Your task to perform on an android device: turn on data saver in the chrome app Image 0: 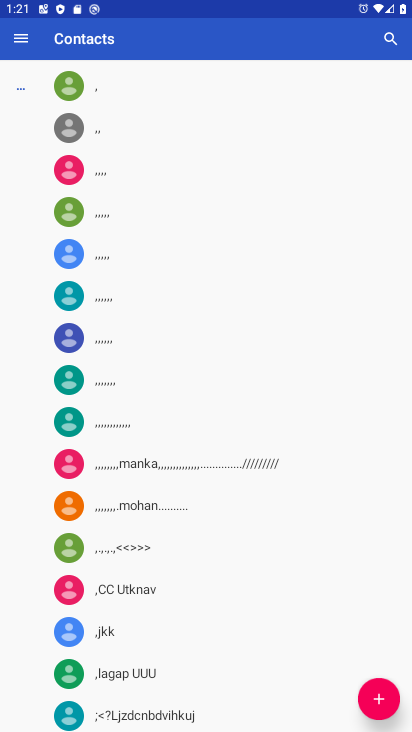
Step 0: press back button
Your task to perform on an android device: turn on data saver in the chrome app Image 1: 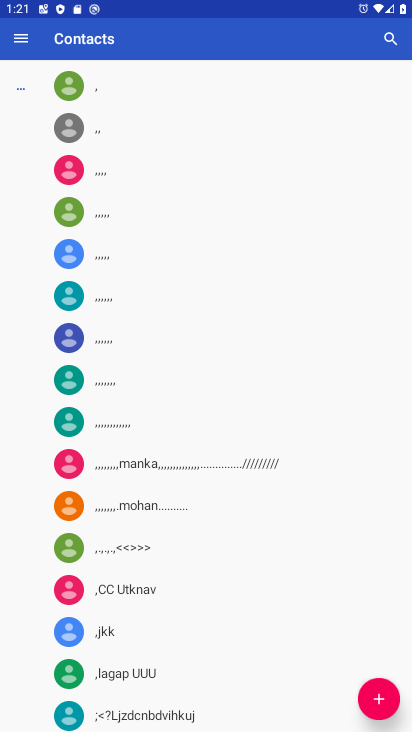
Step 1: press back button
Your task to perform on an android device: turn on data saver in the chrome app Image 2: 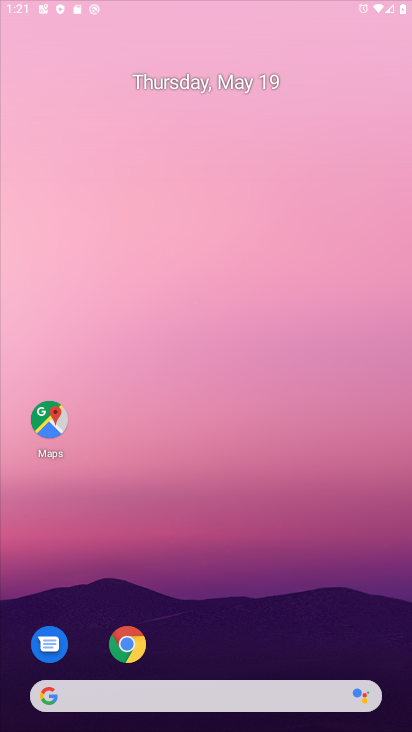
Step 2: press back button
Your task to perform on an android device: turn on data saver in the chrome app Image 3: 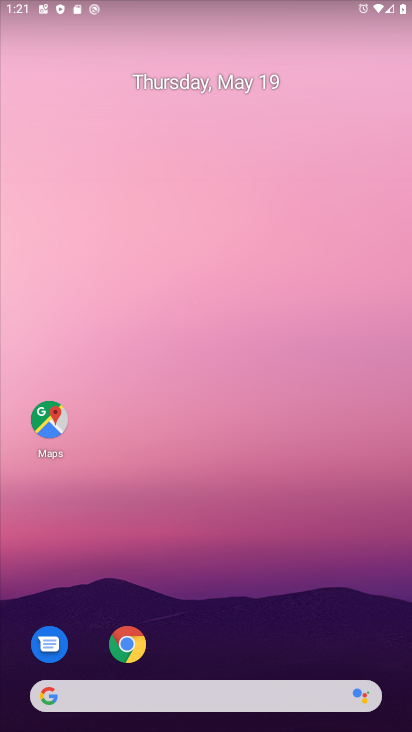
Step 3: drag from (321, 681) to (132, 38)
Your task to perform on an android device: turn on data saver in the chrome app Image 4: 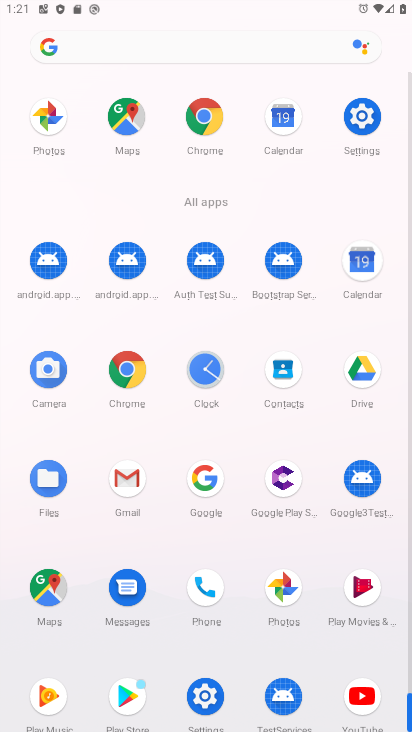
Step 4: click (114, 361)
Your task to perform on an android device: turn on data saver in the chrome app Image 5: 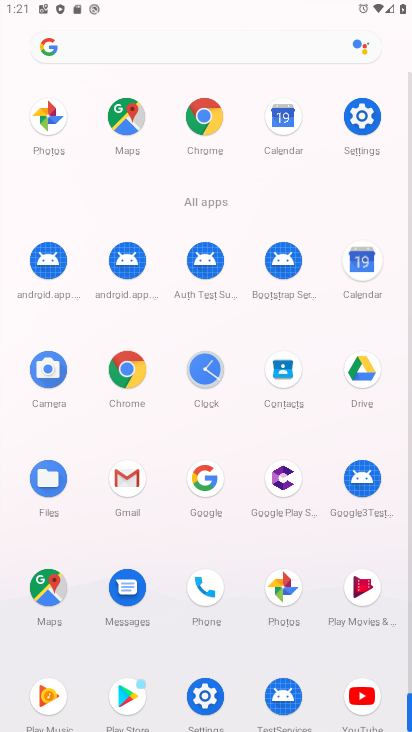
Step 5: click (114, 361)
Your task to perform on an android device: turn on data saver in the chrome app Image 6: 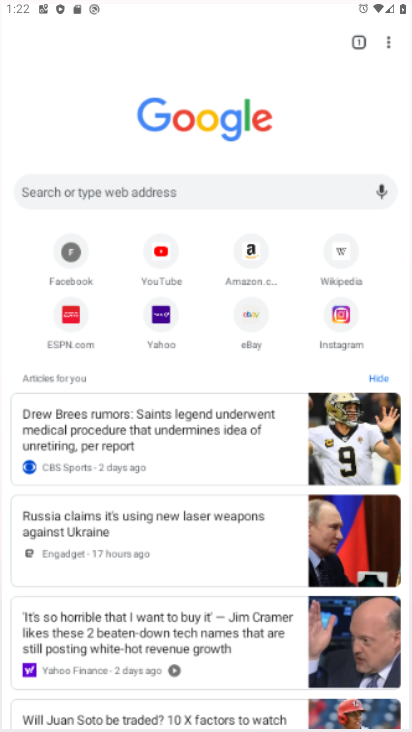
Step 6: click (114, 360)
Your task to perform on an android device: turn on data saver in the chrome app Image 7: 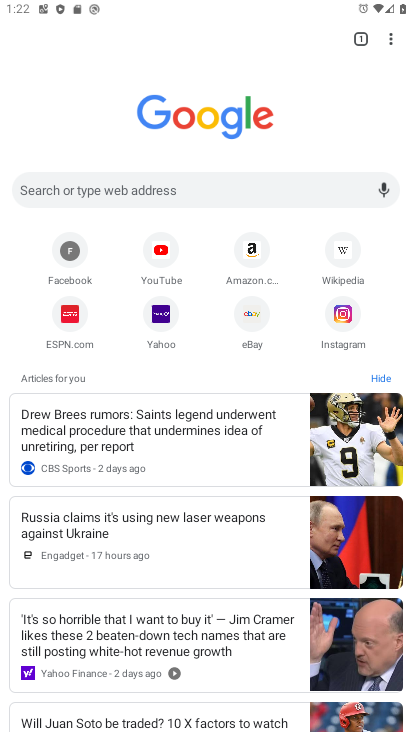
Step 7: drag from (389, 45) to (243, 342)
Your task to perform on an android device: turn on data saver in the chrome app Image 8: 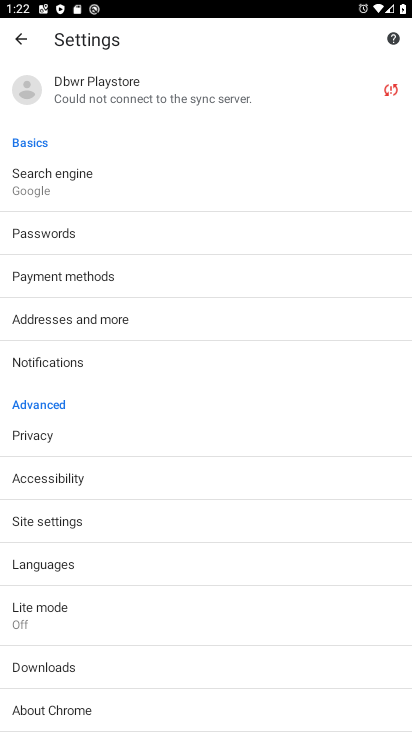
Step 8: click (43, 600)
Your task to perform on an android device: turn on data saver in the chrome app Image 9: 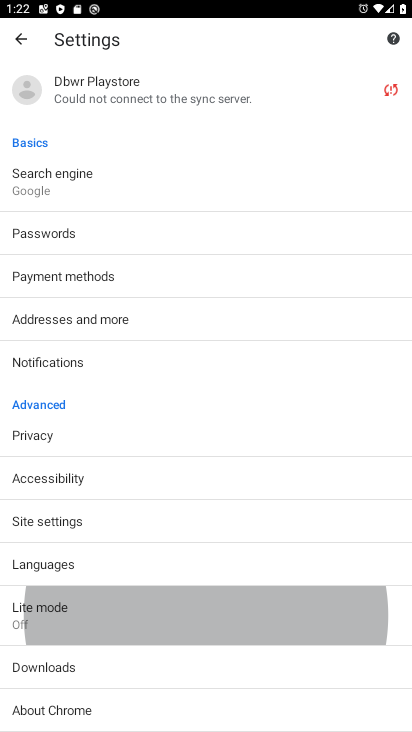
Step 9: click (43, 603)
Your task to perform on an android device: turn on data saver in the chrome app Image 10: 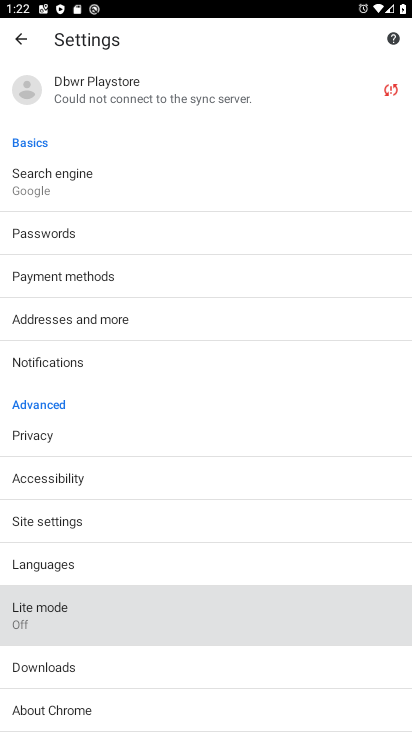
Step 10: click (36, 613)
Your task to perform on an android device: turn on data saver in the chrome app Image 11: 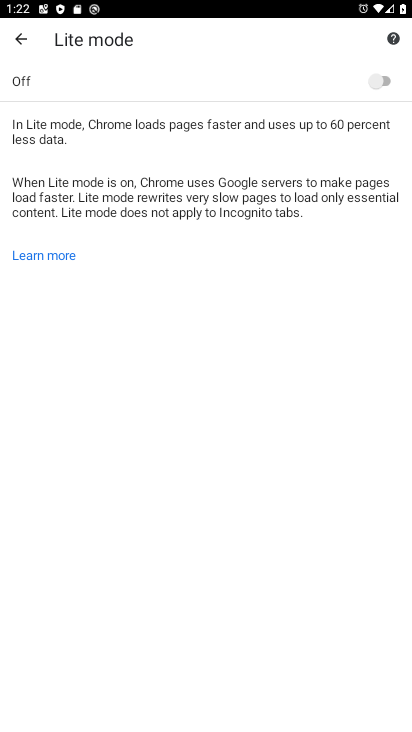
Step 11: click (378, 78)
Your task to perform on an android device: turn on data saver in the chrome app Image 12: 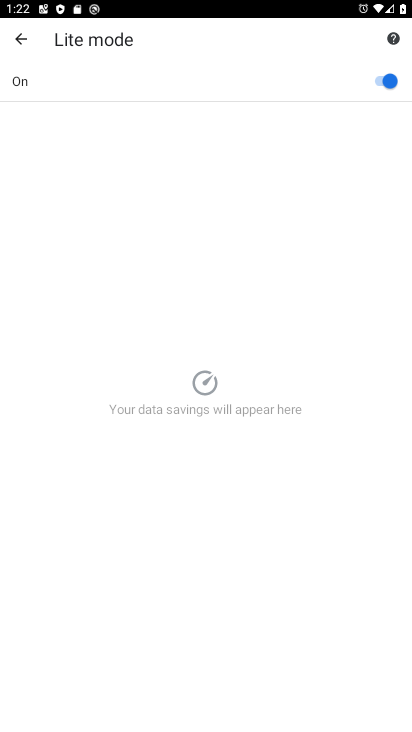
Step 12: task complete